Your task to perform on an android device: Search for Italian restaurants on Maps Image 0: 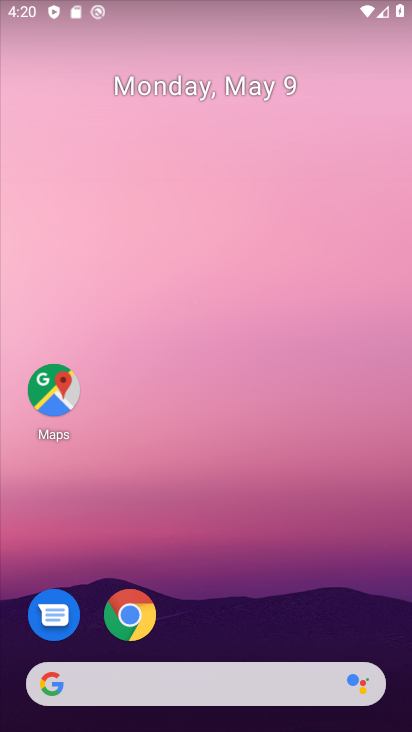
Step 0: click (73, 404)
Your task to perform on an android device: Search for Italian restaurants on Maps Image 1: 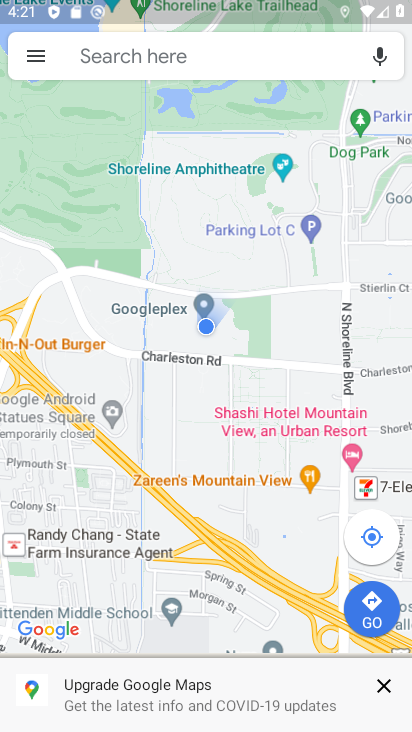
Step 1: click (279, 65)
Your task to perform on an android device: Search for Italian restaurants on Maps Image 2: 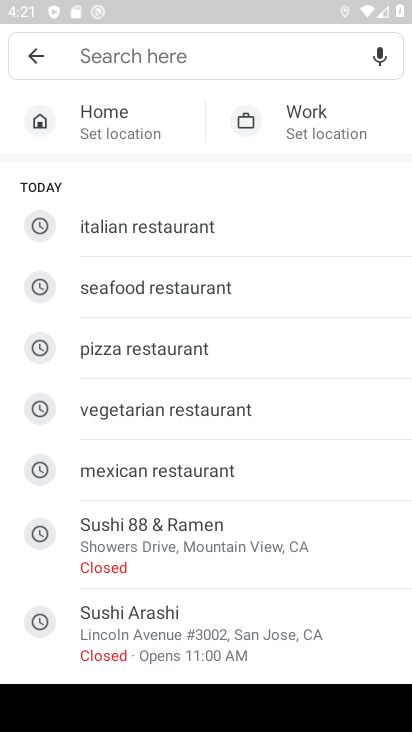
Step 2: type "Italian restaurants"
Your task to perform on an android device: Search for Italian restaurants on Maps Image 3: 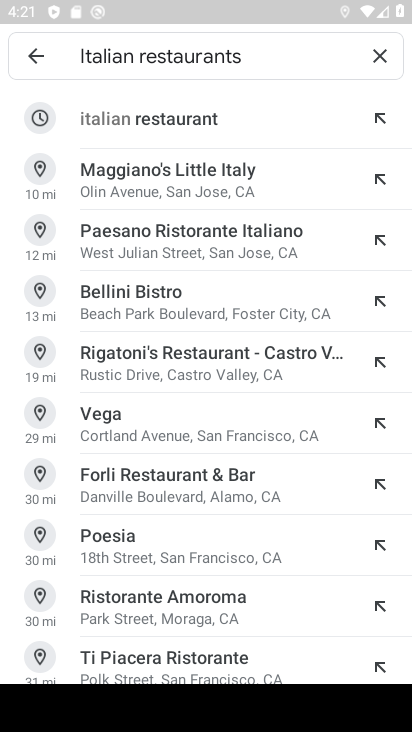
Step 3: click (276, 140)
Your task to perform on an android device: Search for Italian restaurants on Maps Image 4: 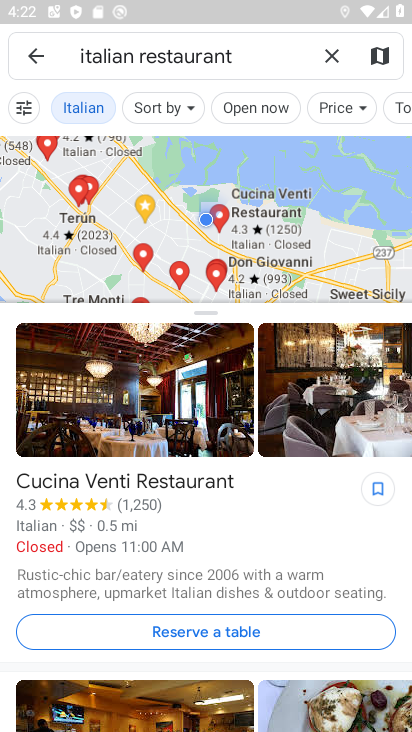
Step 4: task complete